Your task to perform on an android device: Search for Mexican restaurants on Maps Image 0: 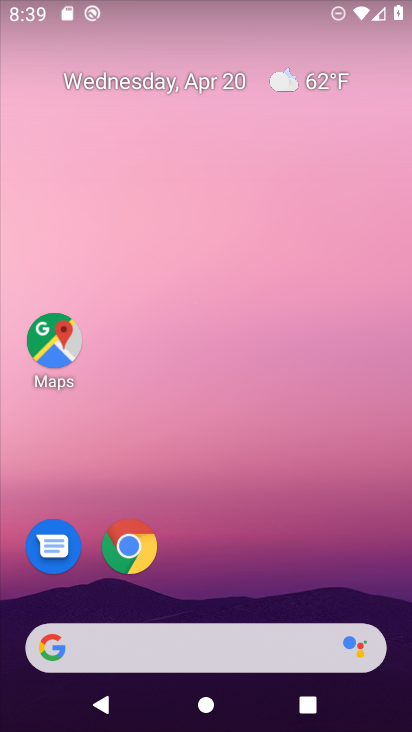
Step 0: click (59, 353)
Your task to perform on an android device: Search for Mexican restaurants on Maps Image 1: 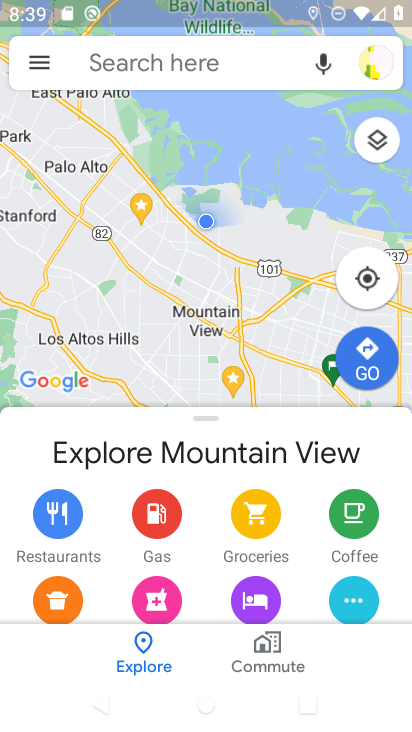
Step 1: click (164, 55)
Your task to perform on an android device: Search for Mexican restaurants on Maps Image 2: 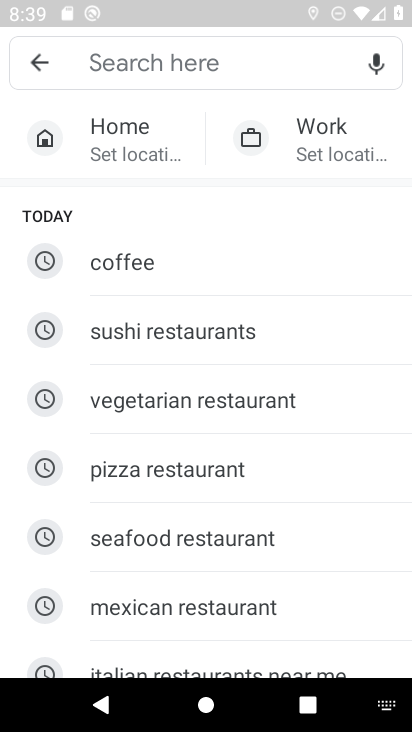
Step 2: click (198, 602)
Your task to perform on an android device: Search for Mexican restaurants on Maps Image 3: 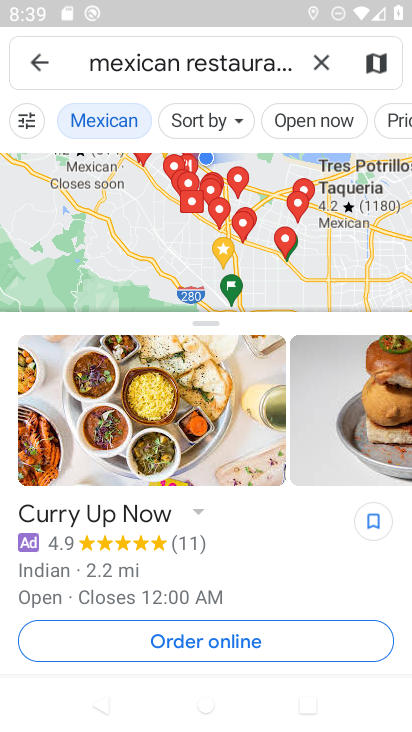
Step 3: task complete